Your task to perform on an android device: Set the phone to "Do not disturb". Image 0: 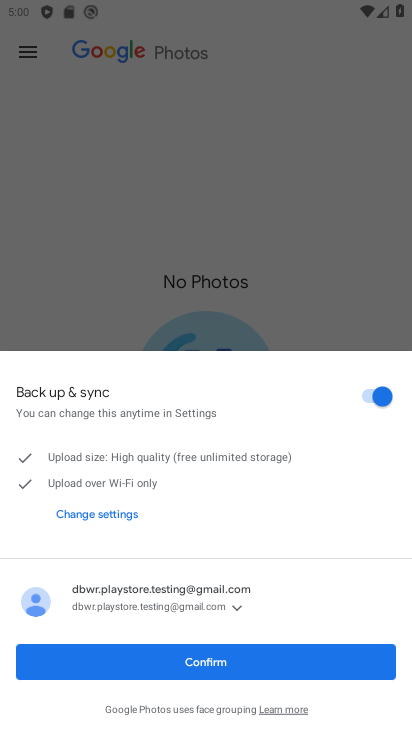
Step 0: drag from (130, 30) to (173, 621)
Your task to perform on an android device: Set the phone to "Do not disturb". Image 1: 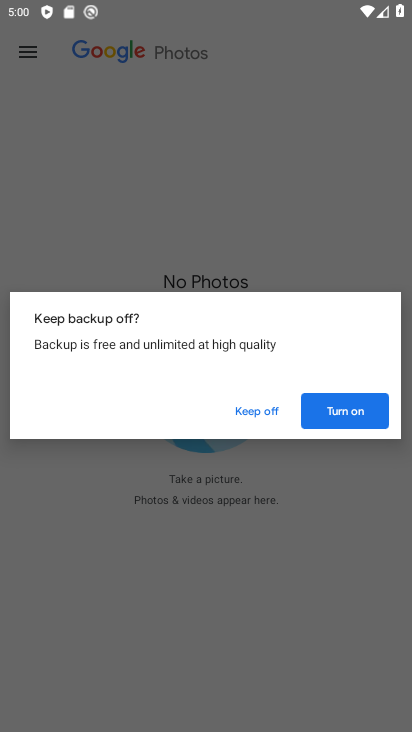
Step 1: drag from (150, 7) to (204, 566)
Your task to perform on an android device: Set the phone to "Do not disturb". Image 2: 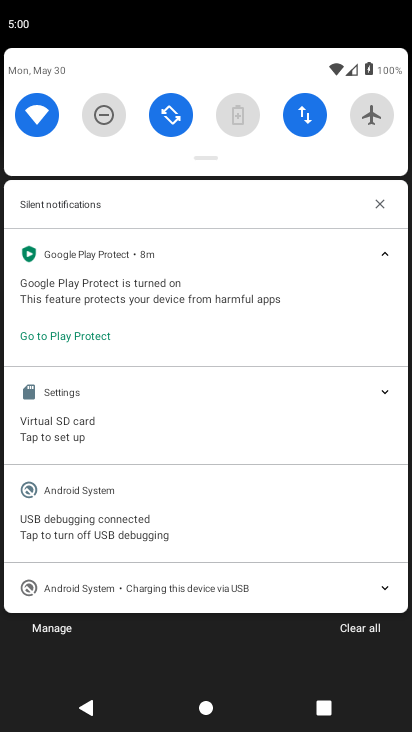
Step 2: click (109, 122)
Your task to perform on an android device: Set the phone to "Do not disturb". Image 3: 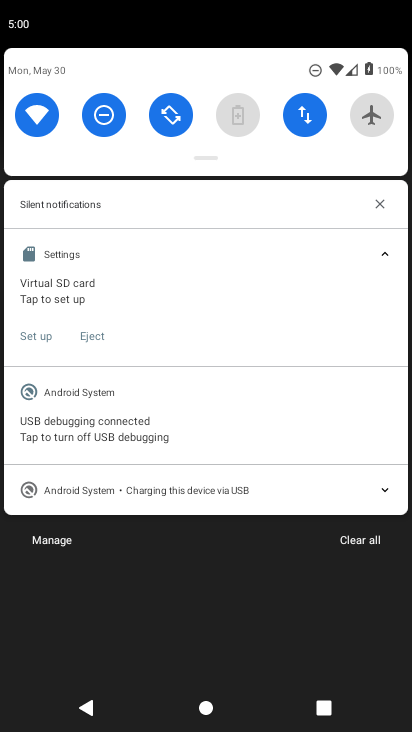
Step 3: task complete